Your task to perform on an android device: Search for pizza restaurants on Maps Image 0: 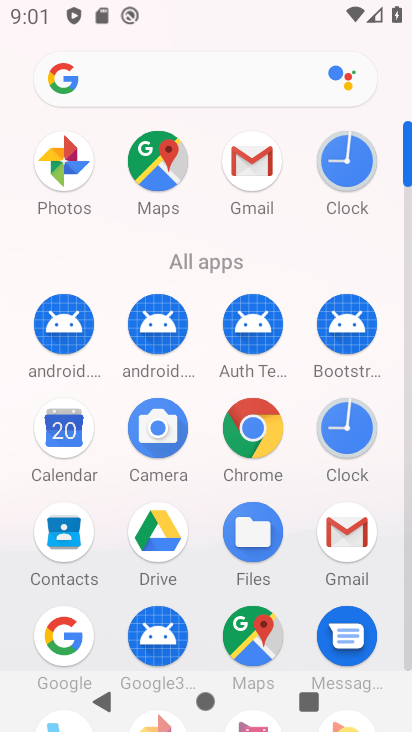
Step 0: press home button
Your task to perform on an android device: Search for pizza restaurants on Maps Image 1: 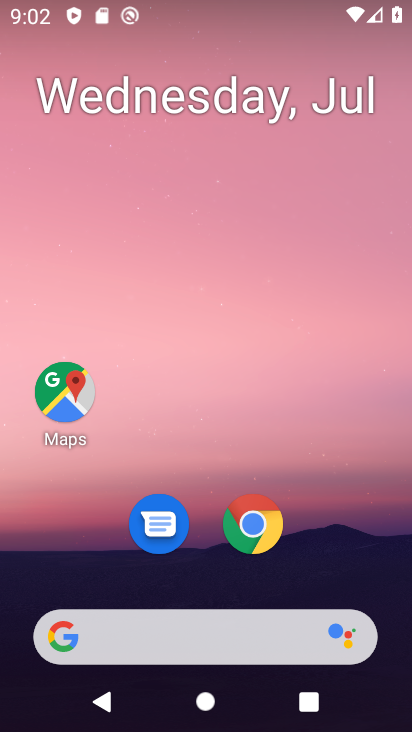
Step 1: click (57, 376)
Your task to perform on an android device: Search for pizza restaurants on Maps Image 2: 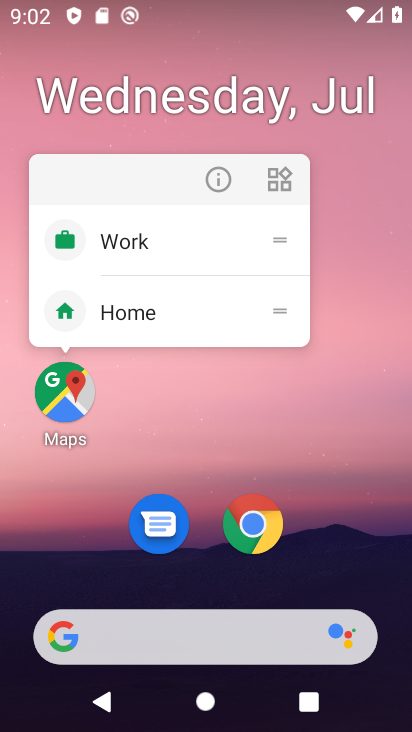
Step 2: click (59, 397)
Your task to perform on an android device: Search for pizza restaurants on Maps Image 3: 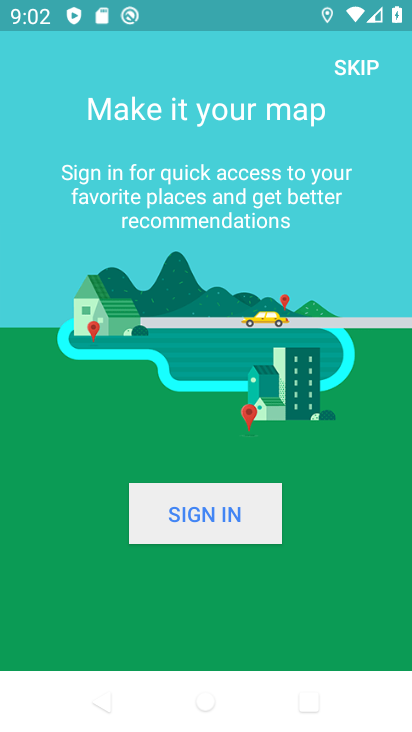
Step 3: click (357, 73)
Your task to perform on an android device: Search for pizza restaurants on Maps Image 4: 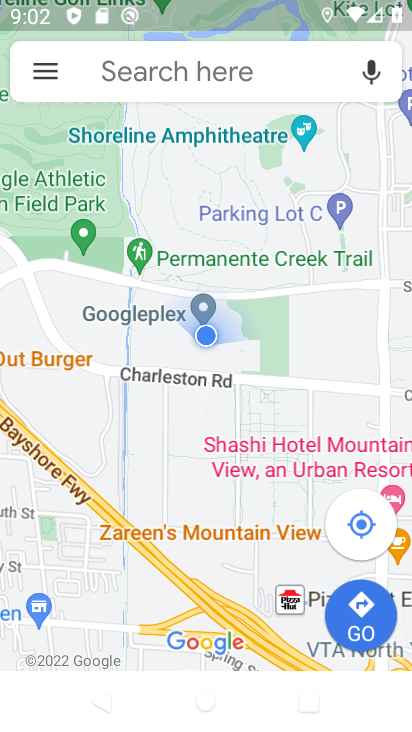
Step 4: click (164, 72)
Your task to perform on an android device: Search for pizza restaurants on Maps Image 5: 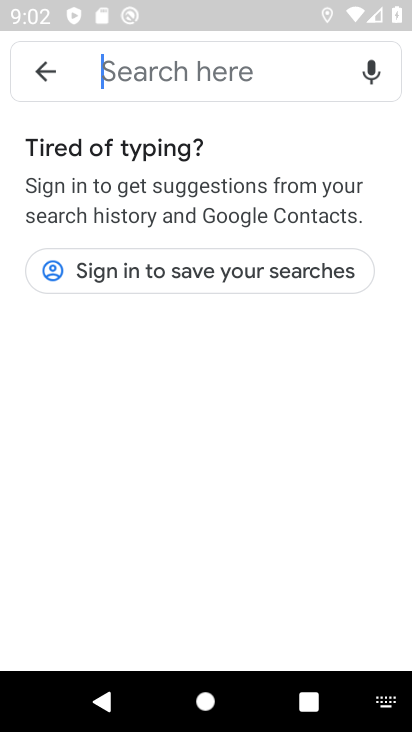
Step 5: type "pizza restaurants"
Your task to perform on an android device: Search for pizza restaurants on Maps Image 6: 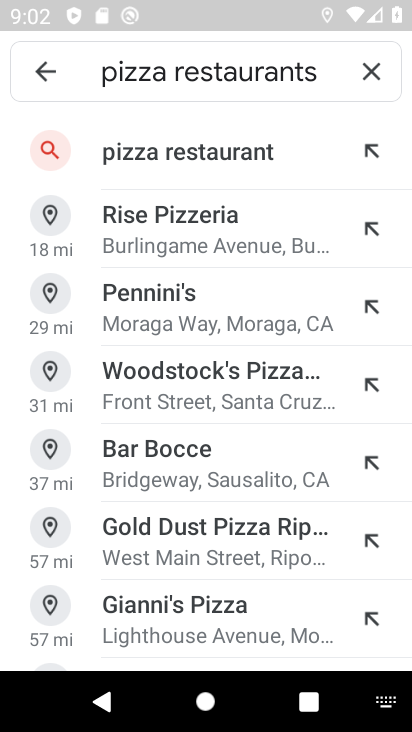
Step 6: click (191, 155)
Your task to perform on an android device: Search for pizza restaurants on Maps Image 7: 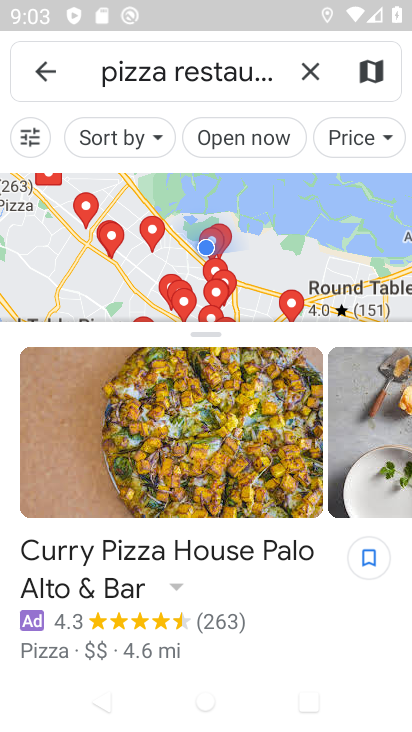
Step 7: task complete